Your task to perform on an android device: all mails in gmail Image 0: 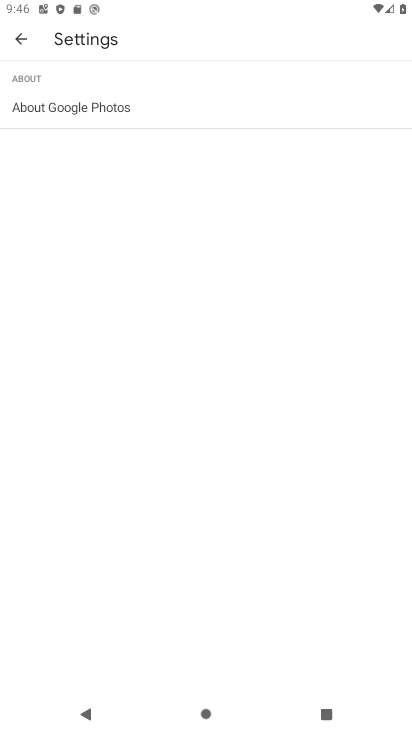
Step 0: click (19, 35)
Your task to perform on an android device: all mails in gmail Image 1: 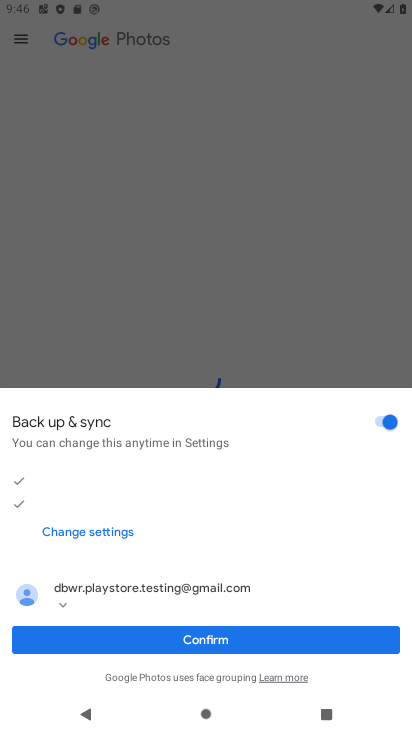
Step 1: press home button
Your task to perform on an android device: all mails in gmail Image 2: 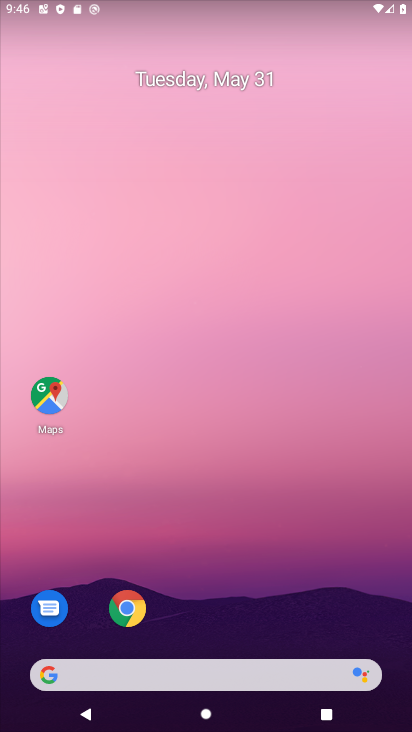
Step 2: drag from (190, 662) to (132, 5)
Your task to perform on an android device: all mails in gmail Image 3: 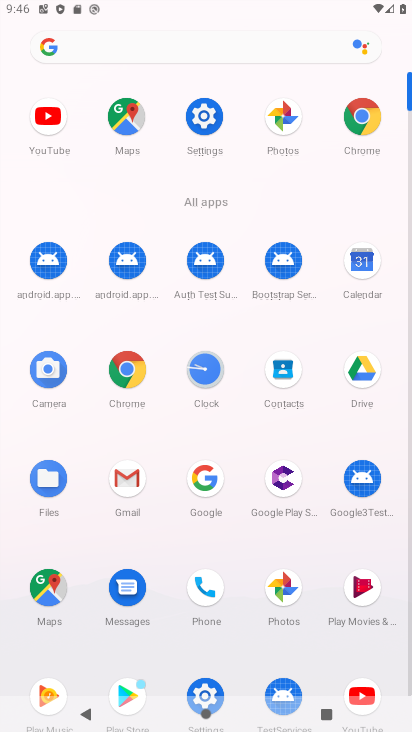
Step 3: click (109, 487)
Your task to perform on an android device: all mails in gmail Image 4: 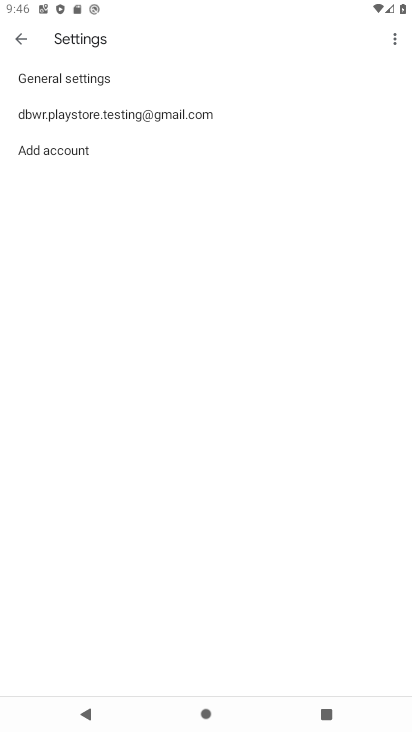
Step 4: click (24, 38)
Your task to perform on an android device: all mails in gmail Image 5: 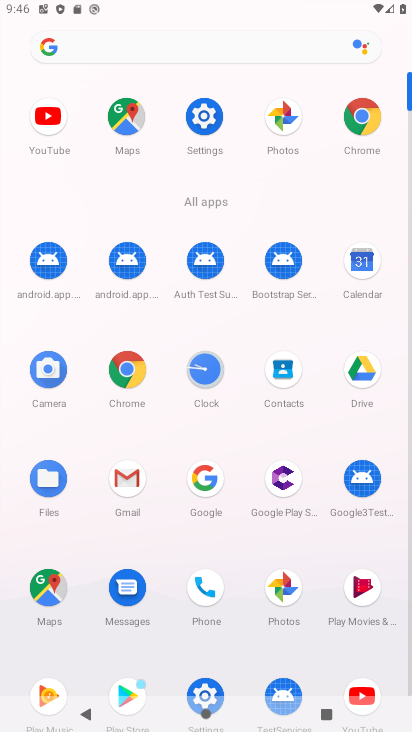
Step 5: click (119, 474)
Your task to perform on an android device: all mails in gmail Image 6: 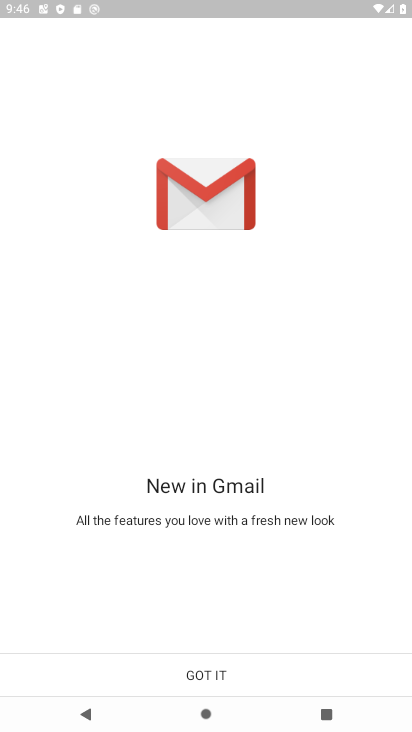
Step 6: click (215, 675)
Your task to perform on an android device: all mails in gmail Image 7: 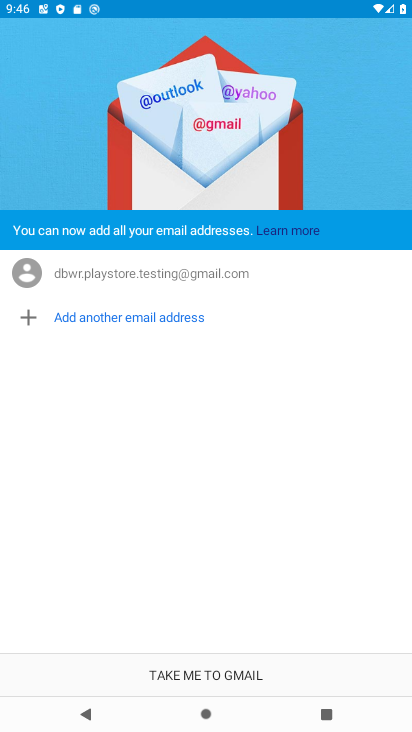
Step 7: click (200, 659)
Your task to perform on an android device: all mails in gmail Image 8: 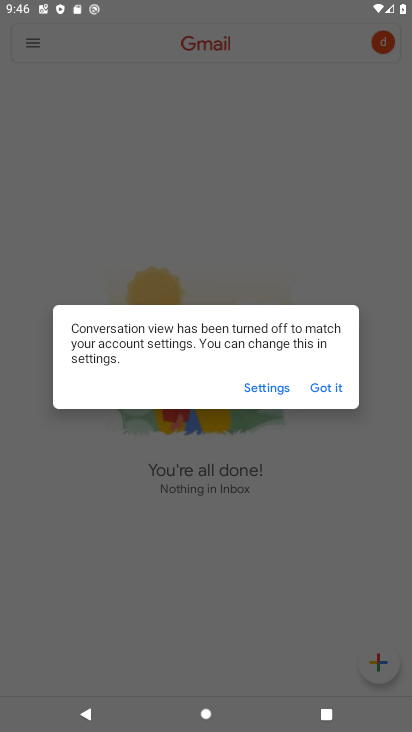
Step 8: click (321, 389)
Your task to perform on an android device: all mails in gmail Image 9: 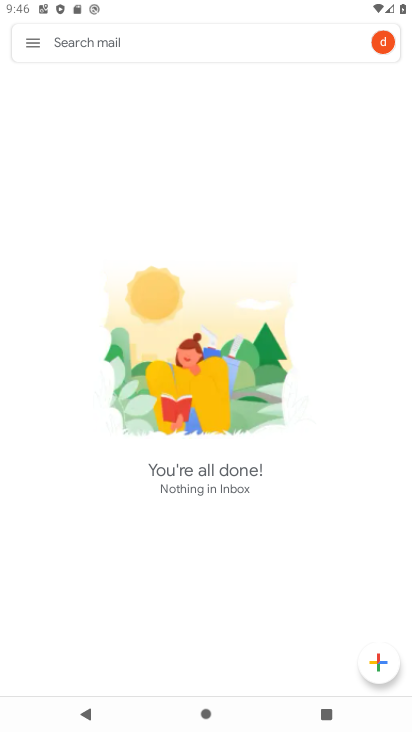
Step 9: click (38, 44)
Your task to perform on an android device: all mails in gmail Image 10: 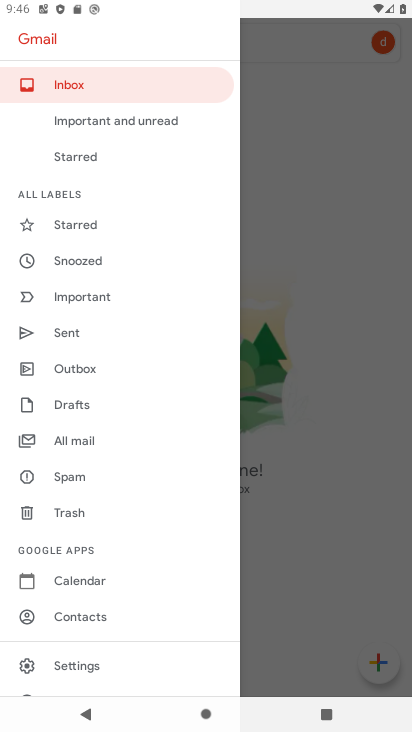
Step 10: click (84, 437)
Your task to perform on an android device: all mails in gmail Image 11: 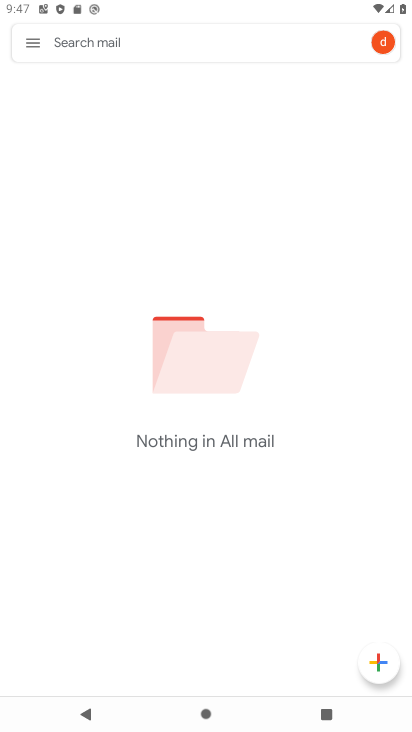
Step 11: task complete